Your task to perform on an android device: Open Google Chrome and open the bookmarks view Image 0: 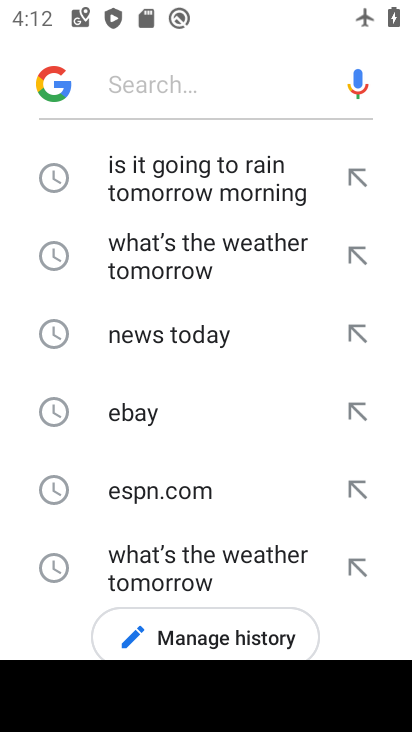
Step 0: press back button
Your task to perform on an android device: Open Google Chrome and open the bookmarks view Image 1: 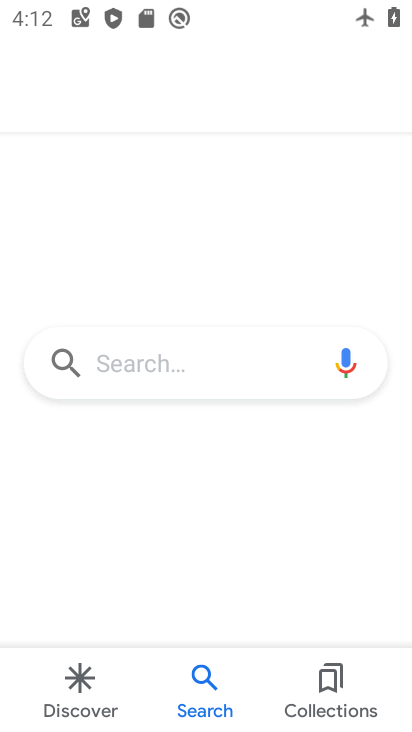
Step 1: press back button
Your task to perform on an android device: Open Google Chrome and open the bookmarks view Image 2: 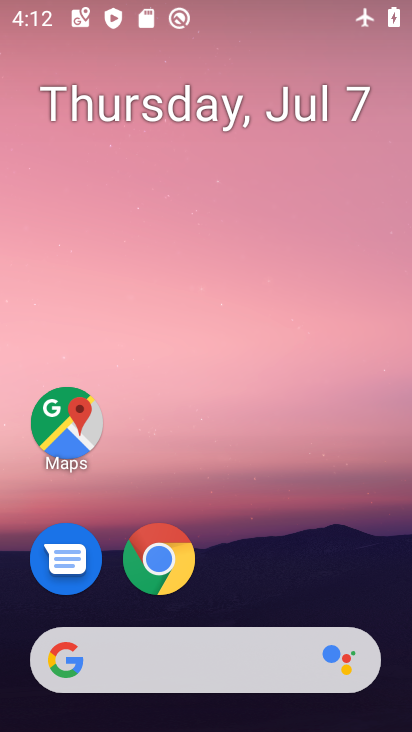
Step 2: click (157, 541)
Your task to perform on an android device: Open Google Chrome and open the bookmarks view Image 3: 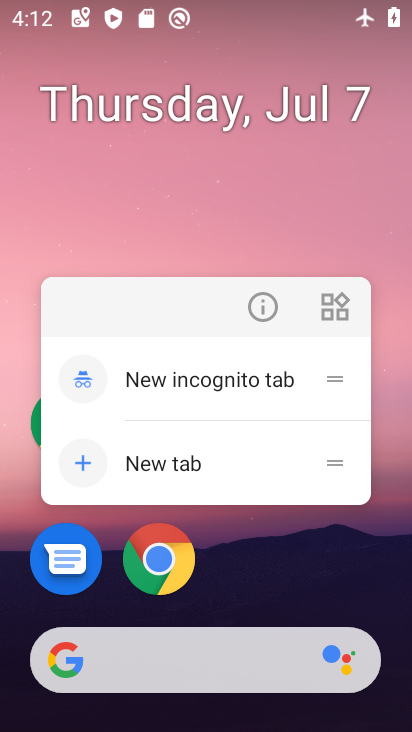
Step 3: click (158, 544)
Your task to perform on an android device: Open Google Chrome and open the bookmarks view Image 4: 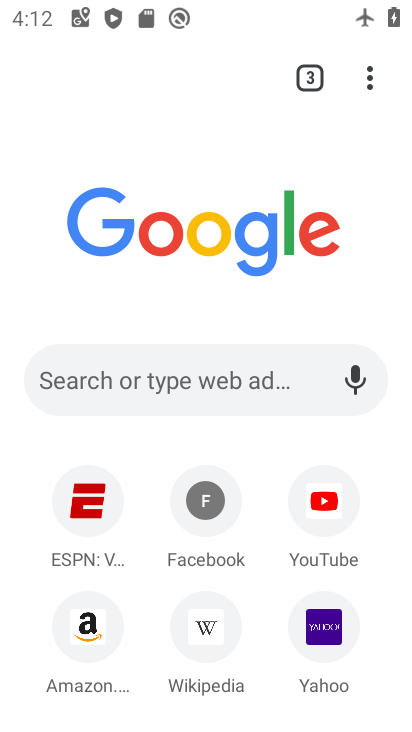
Step 4: task complete